Your task to perform on an android device: change notification settings in the gmail app Image 0: 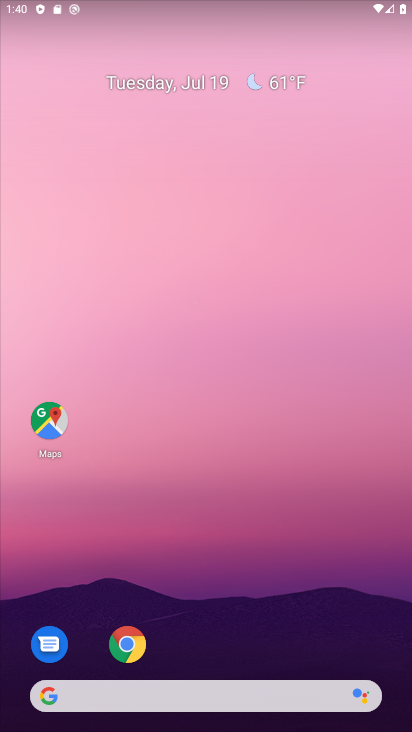
Step 0: drag from (220, 663) to (223, 111)
Your task to perform on an android device: change notification settings in the gmail app Image 1: 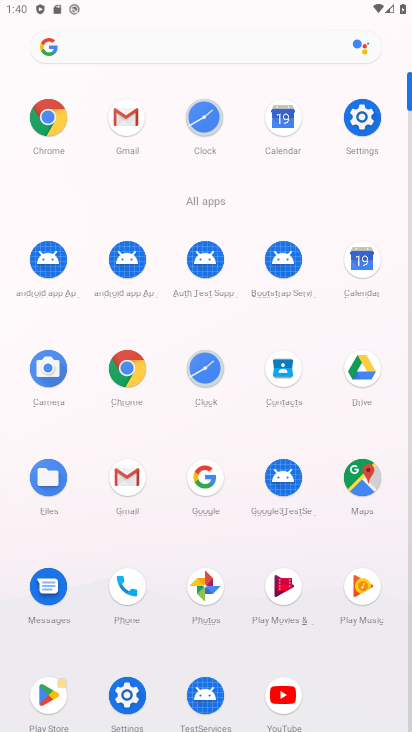
Step 1: click (127, 493)
Your task to perform on an android device: change notification settings in the gmail app Image 2: 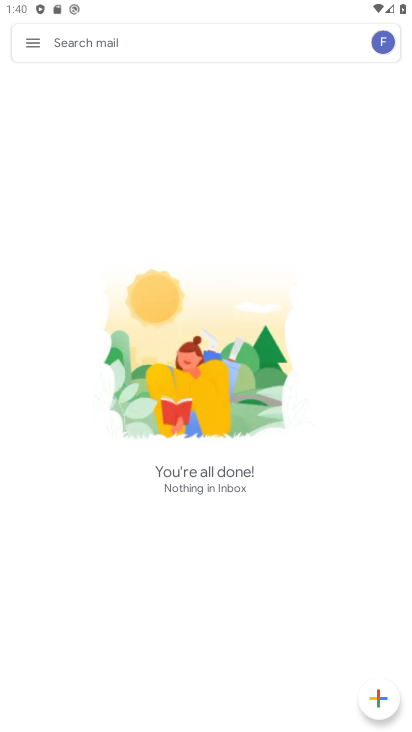
Step 2: click (25, 46)
Your task to perform on an android device: change notification settings in the gmail app Image 3: 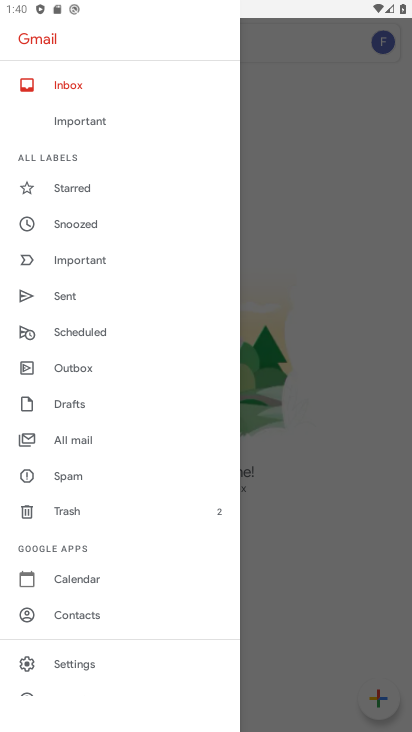
Step 3: click (95, 654)
Your task to perform on an android device: change notification settings in the gmail app Image 4: 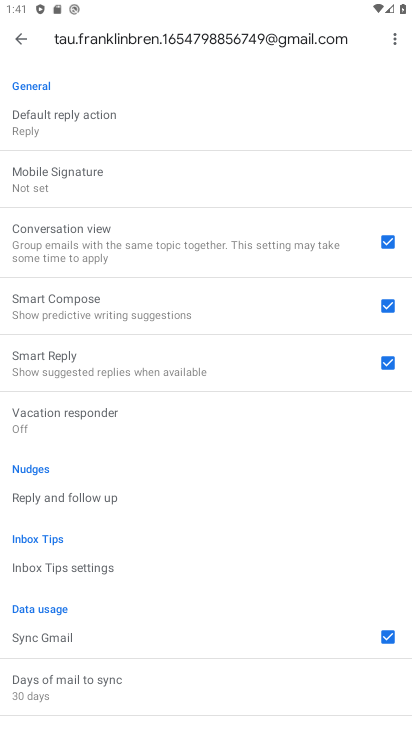
Step 4: drag from (39, 135) to (45, 502)
Your task to perform on an android device: change notification settings in the gmail app Image 5: 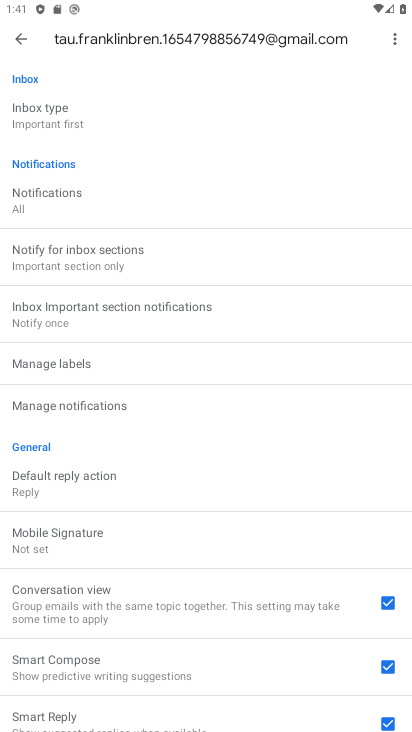
Step 5: click (22, 37)
Your task to perform on an android device: change notification settings in the gmail app Image 6: 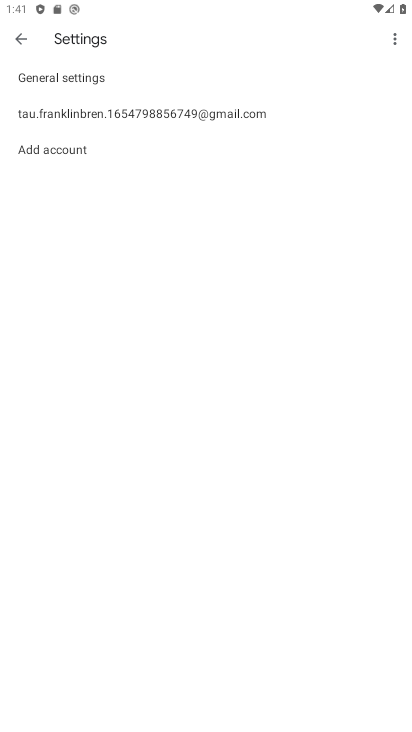
Step 6: click (46, 77)
Your task to perform on an android device: change notification settings in the gmail app Image 7: 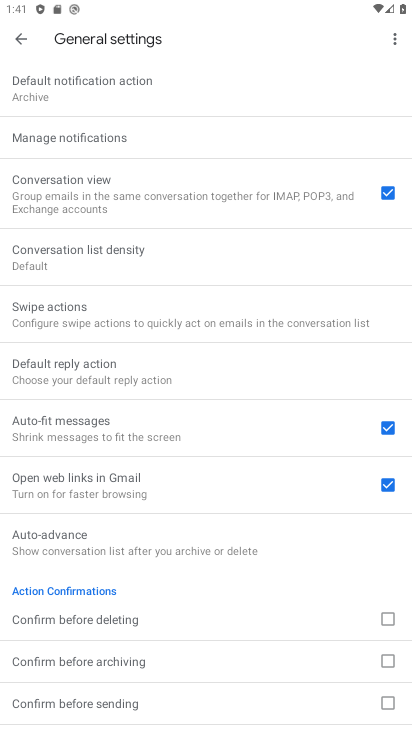
Step 7: click (21, 143)
Your task to perform on an android device: change notification settings in the gmail app Image 8: 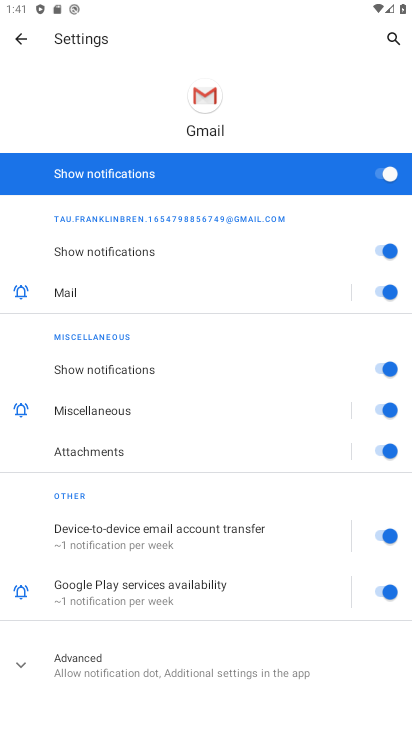
Step 8: click (391, 184)
Your task to perform on an android device: change notification settings in the gmail app Image 9: 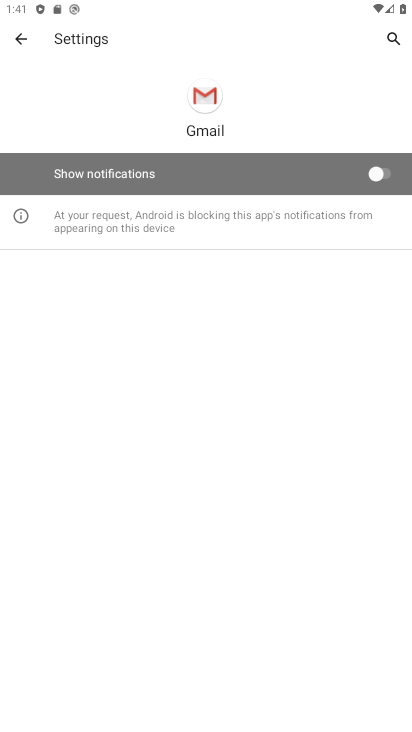
Step 9: task complete